Your task to perform on an android device: add a label to a message in the gmail app Image 0: 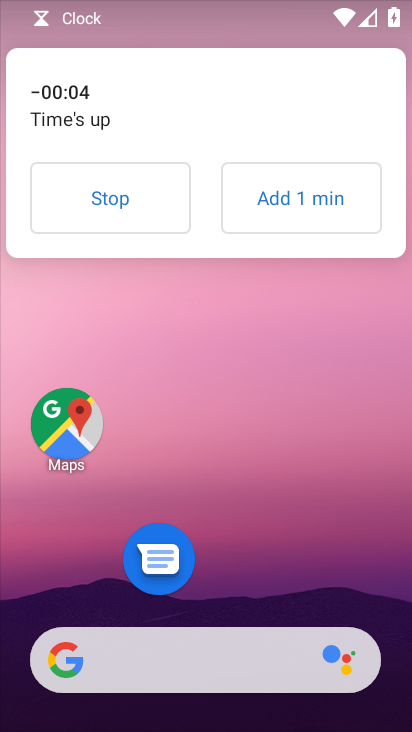
Step 0: click (247, 586)
Your task to perform on an android device: add a label to a message in the gmail app Image 1: 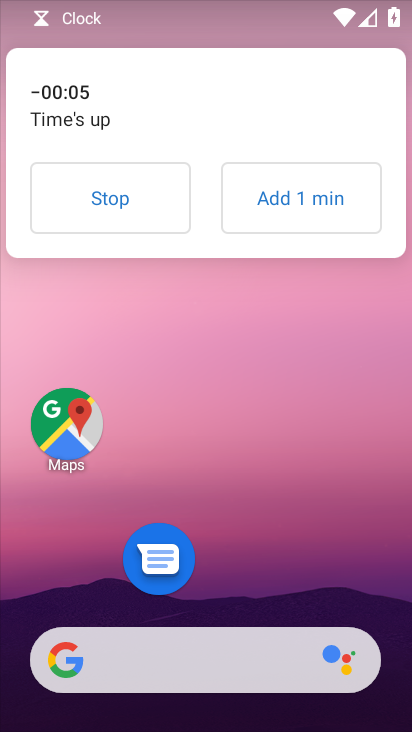
Step 1: drag from (242, 605) to (240, 40)
Your task to perform on an android device: add a label to a message in the gmail app Image 2: 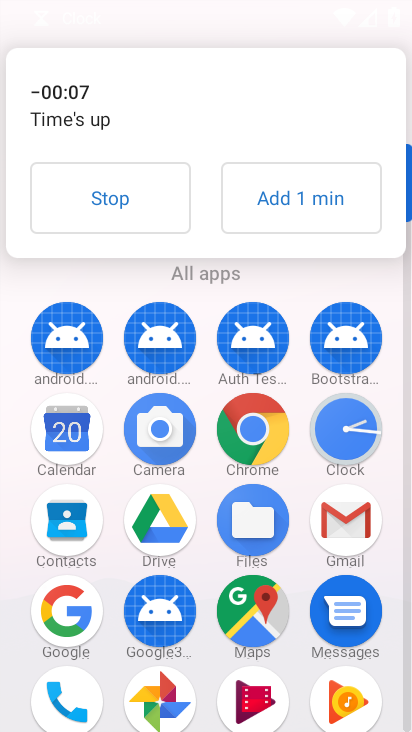
Step 2: click (366, 513)
Your task to perform on an android device: add a label to a message in the gmail app Image 3: 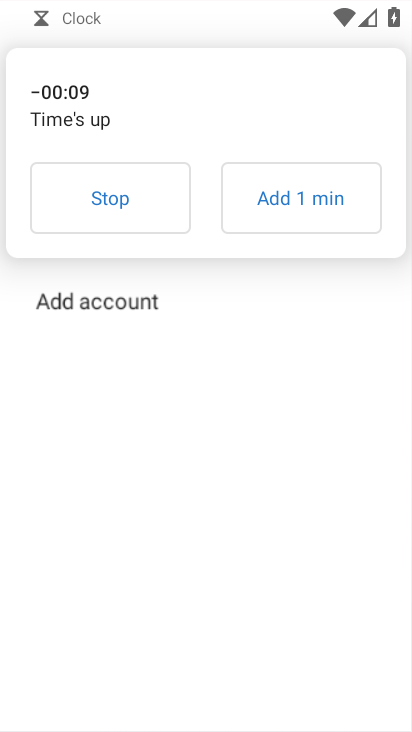
Step 3: click (142, 207)
Your task to perform on an android device: add a label to a message in the gmail app Image 4: 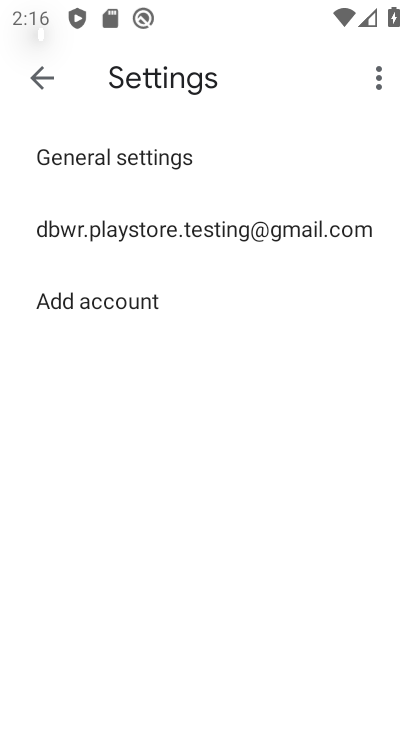
Step 4: click (110, 205)
Your task to perform on an android device: add a label to a message in the gmail app Image 5: 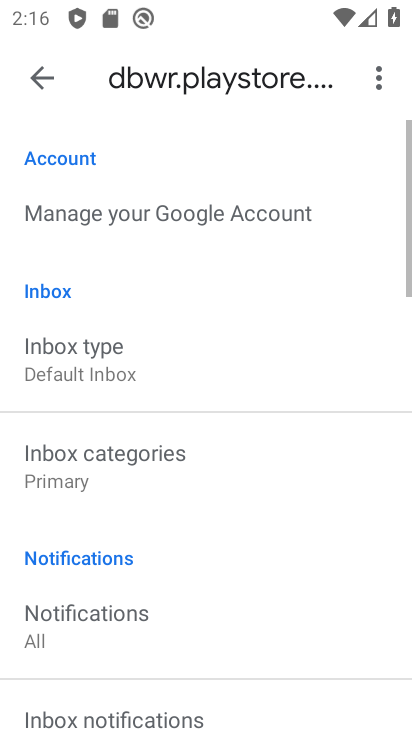
Step 5: click (54, 60)
Your task to perform on an android device: add a label to a message in the gmail app Image 6: 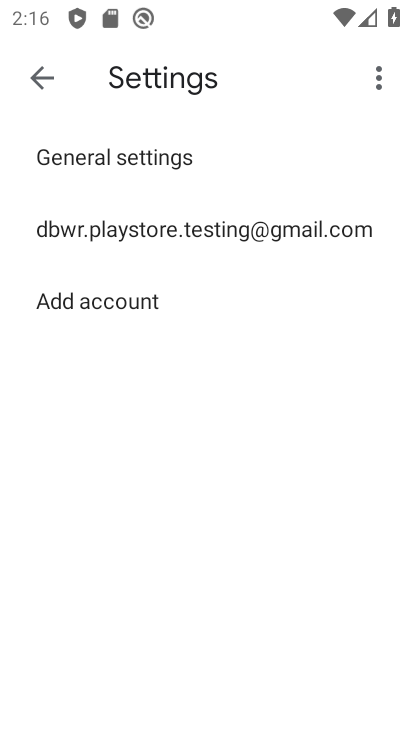
Step 6: click (54, 60)
Your task to perform on an android device: add a label to a message in the gmail app Image 7: 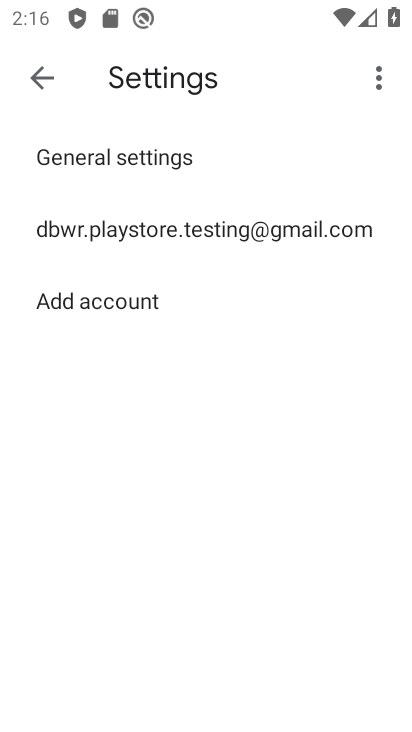
Step 7: click (48, 64)
Your task to perform on an android device: add a label to a message in the gmail app Image 8: 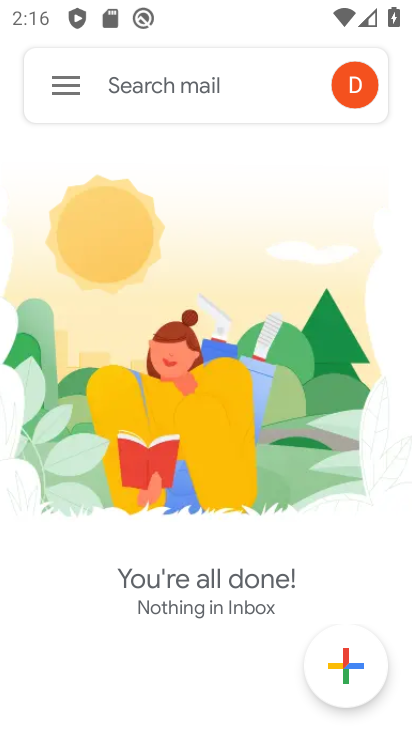
Step 8: task complete